Your task to perform on an android device: snooze an email in the gmail app Image 0: 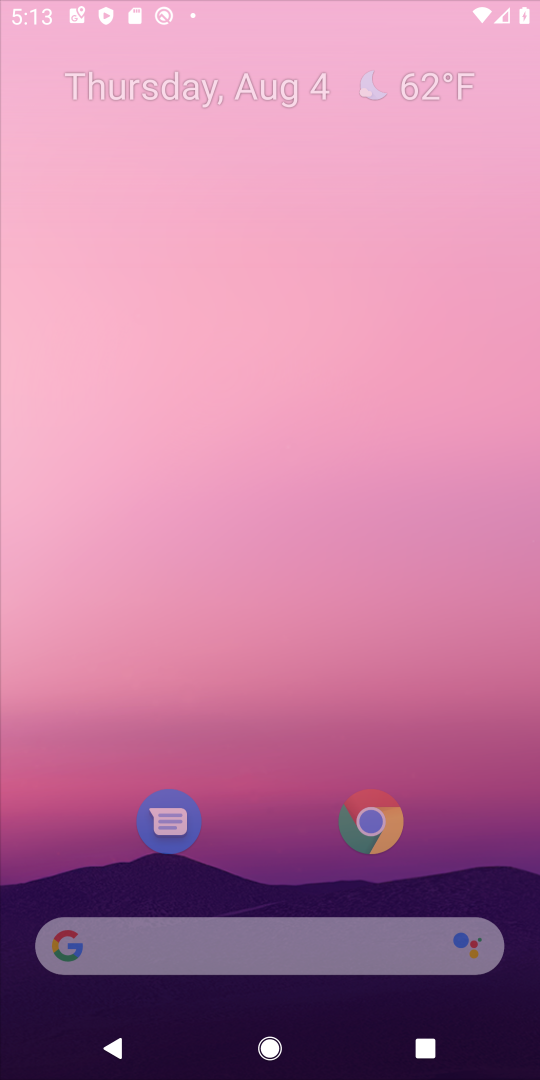
Step 0: press home button
Your task to perform on an android device: snooze an email in the gmail app Image 1: 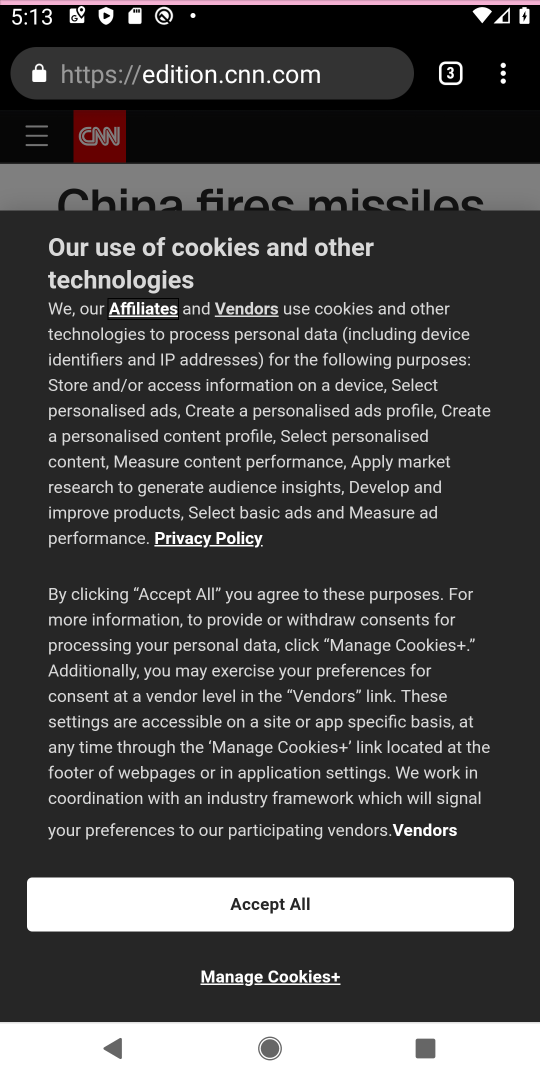
Step 1: press home button
Your task to perform on an android device: snooze an email in the gmail app Image 2: 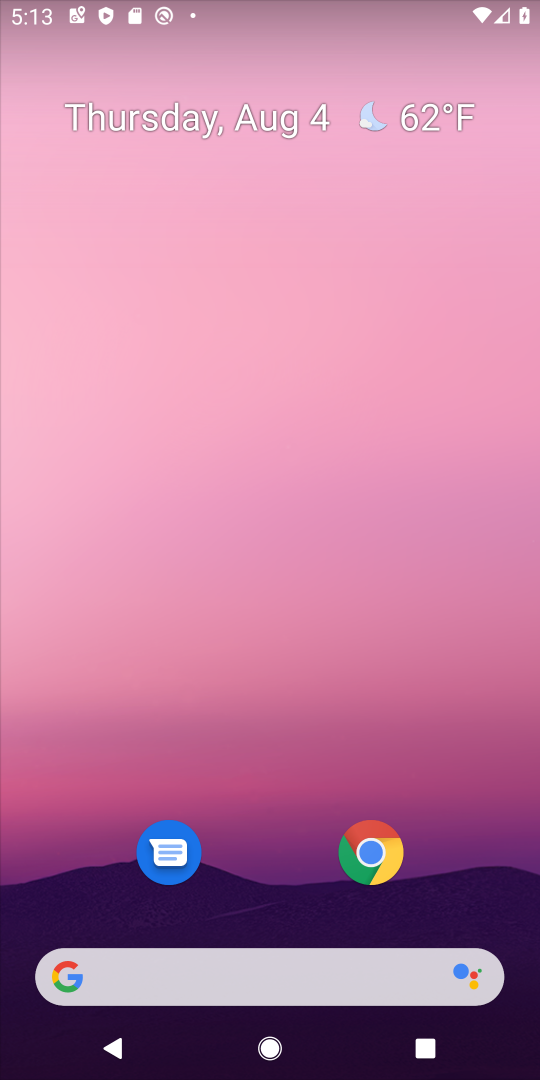
Step 2: press home button
Your task to perform on an android device: snooze an email in the gmail app Image 3: 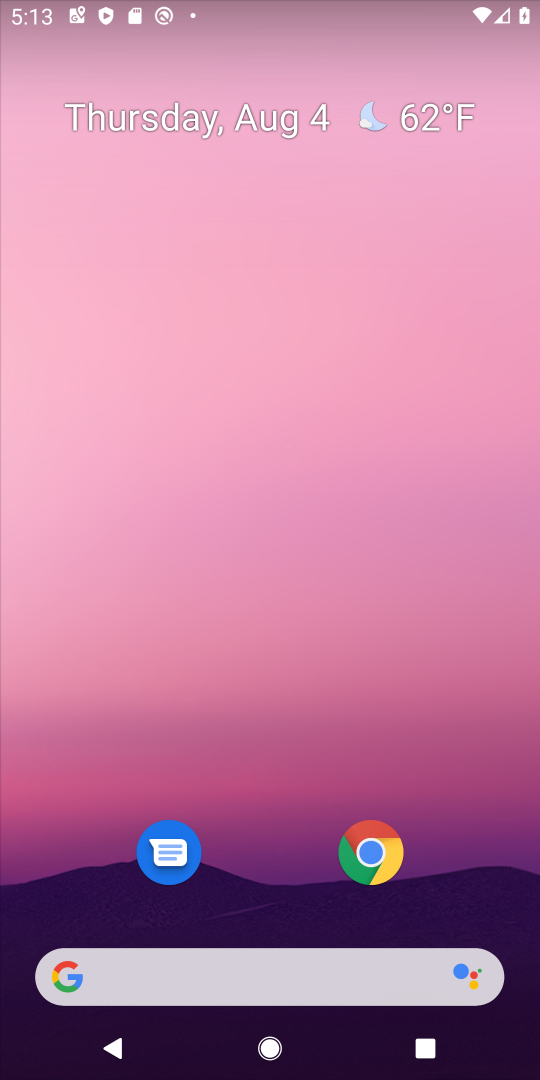
Step 3: drag from (272, 904) to (287, 219)
Your task to perform on an android device: snooze an email in the gmail app Image 4: 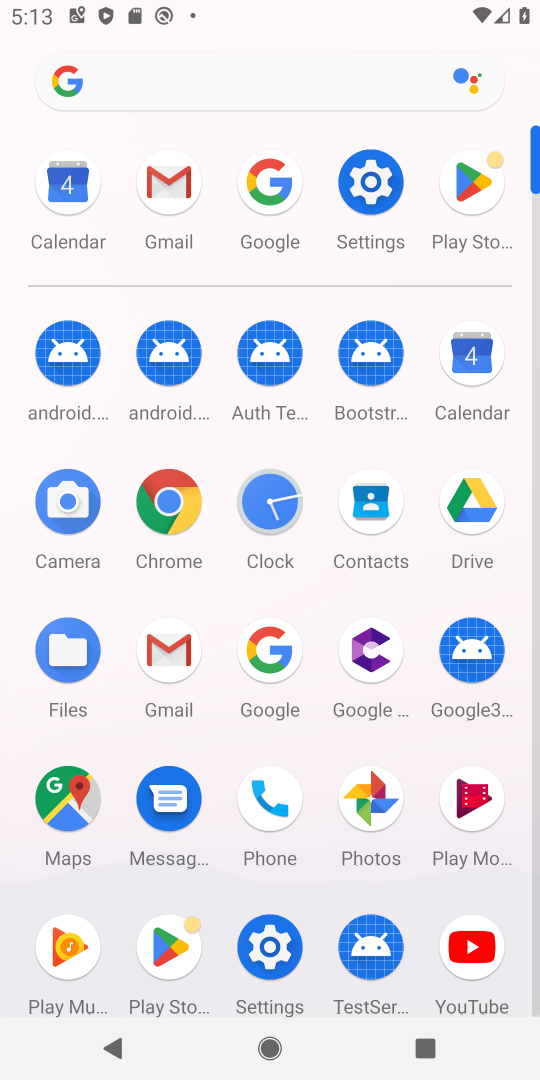
Step 4: click (168, 655)
Your task to perform on an android device: snooze an email in the gmail app Image 5: 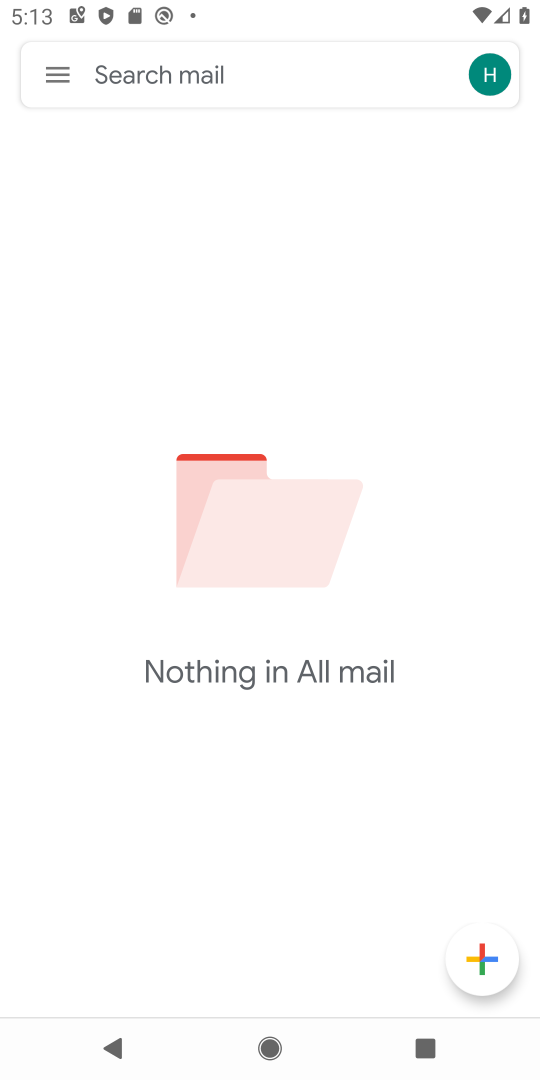
Step 5: click (60, 69)
Your task to perform on an android device: snooze an email in the gmail app Image 6: 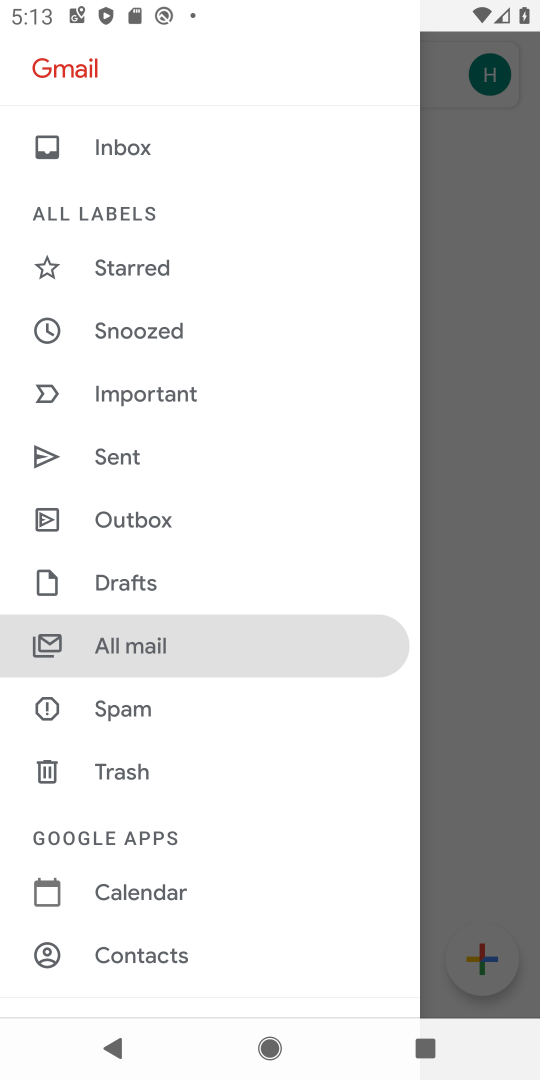
Step 6: click (113, 152)
Your task to perform on an android device: snooze an email in the gmail app Image 7: 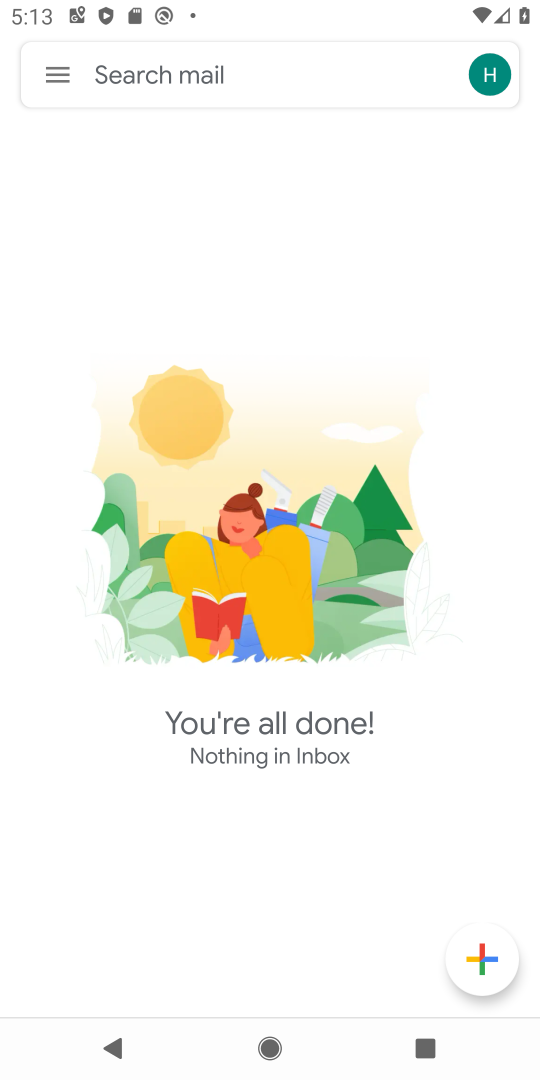
Step 7: task complete